Your task to perform on an android device: Open accessibility settings Image 0: 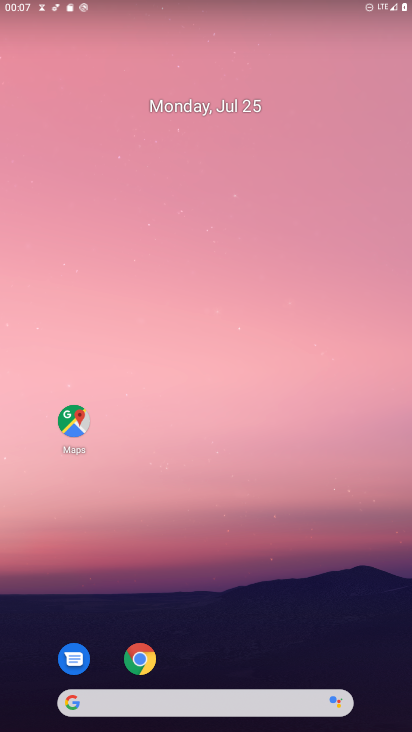
Step 0: drag from (180, 671) to (177, 69)
Your task to perform on an android device: Open accessibility settings Image 1: 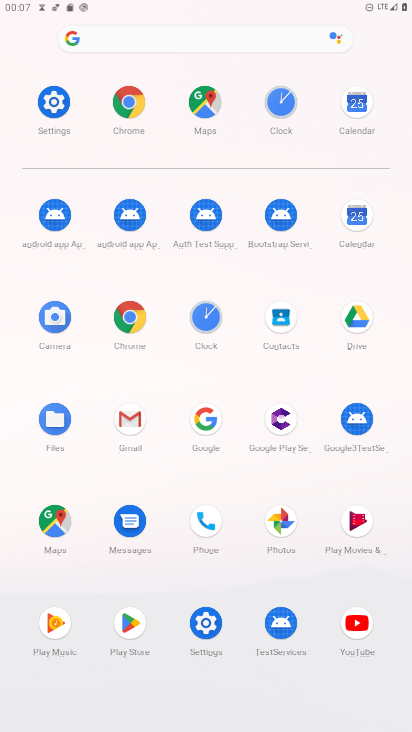
Step 1: click (46, 95)
Your task to perform on an android device: Open accessibility settings Image 2: 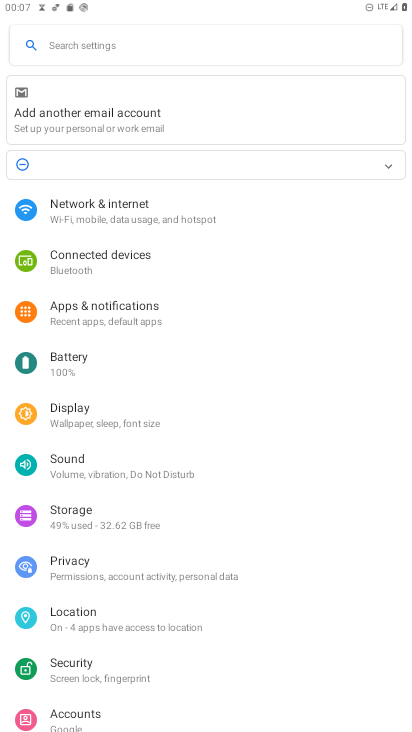
Step 2: drag from (121, 710) to (137, 263)
Your task to perform on an android device: Open accessibility settings Image 3: 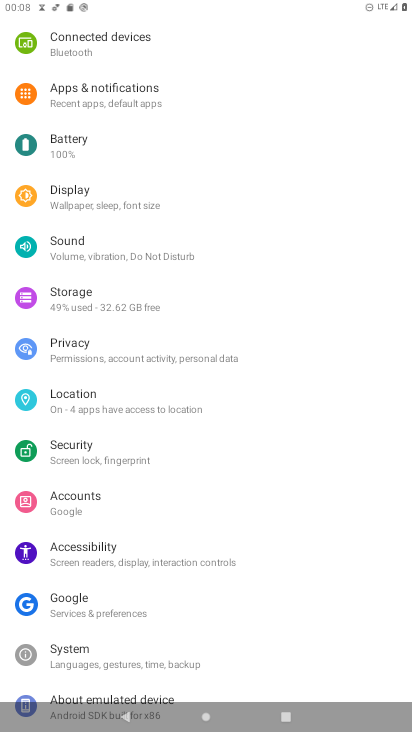
Step 3: click (132, 546)
Your task to perform on an android device: Open accessibility settings Image 4: 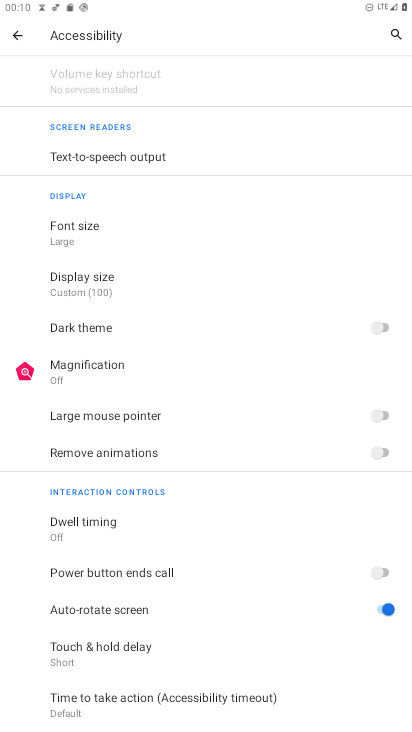
Step 4: task complete